Your task to perform on an android device: turn off smart reply in the gmail app Image 0: 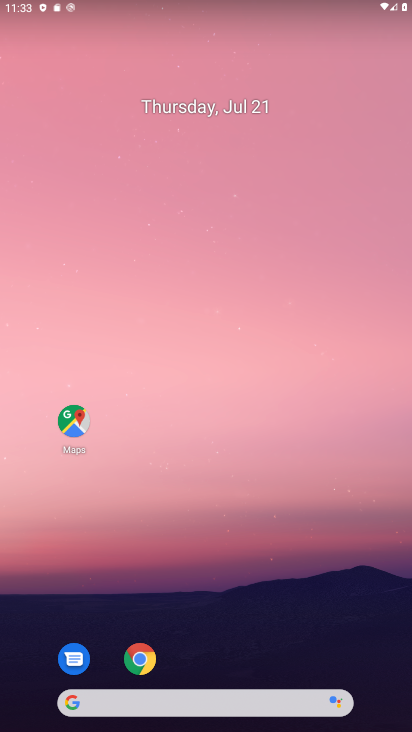
Step 0: drag from (237, 624) to (271, 57)
Your task to perform on an android device: turn off smart reply in the gmail app Image 1: 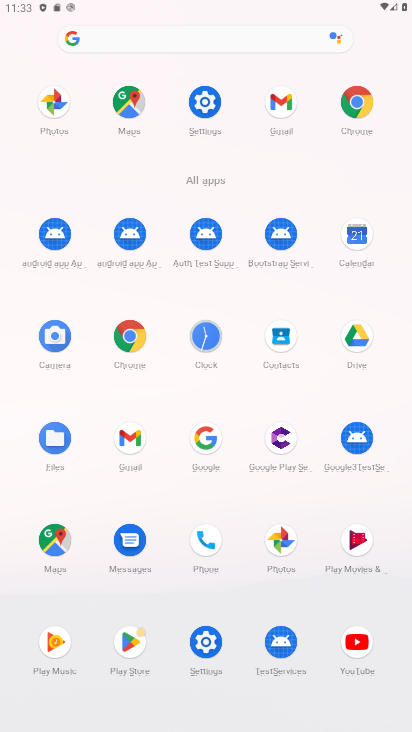
Step 1: click (290, 118)
Your task to perform on an android device: turn off smart reply in the gmail app Image 2: 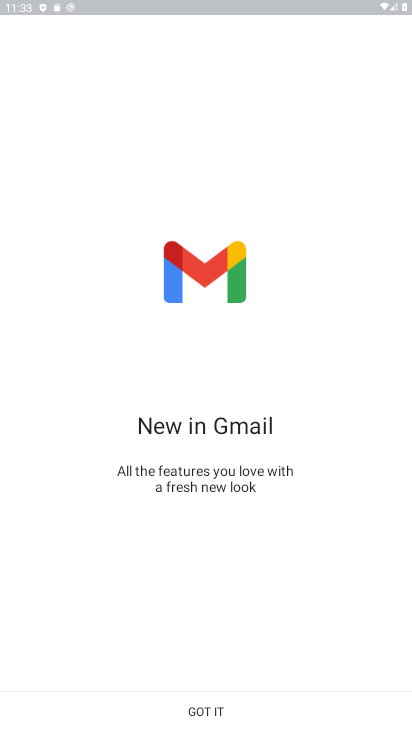
Step 2: click (214, 697)
Your task to perform on an android device: turn off smart reply in the gmail app Image 3: 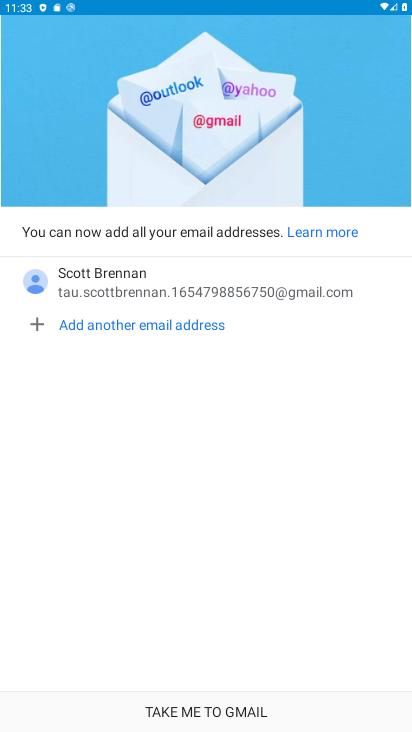
Step 3: click (214, 715)
Your task to perform on an android device: turn off smart reply in the gmail app Image 4: 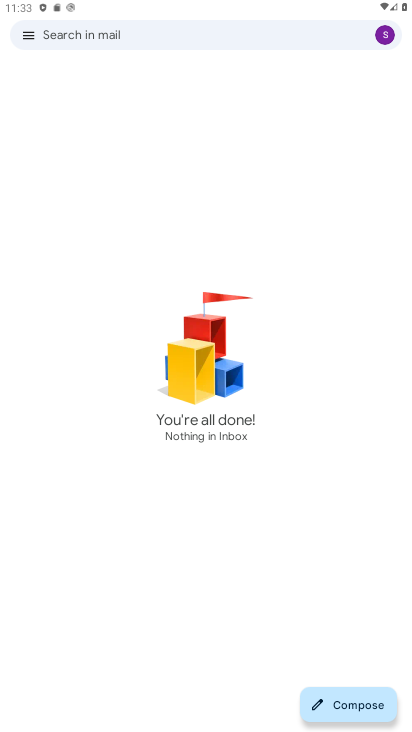
Step 4: task complete